Your task to perform on an android device: Go to notification settings Image 0: 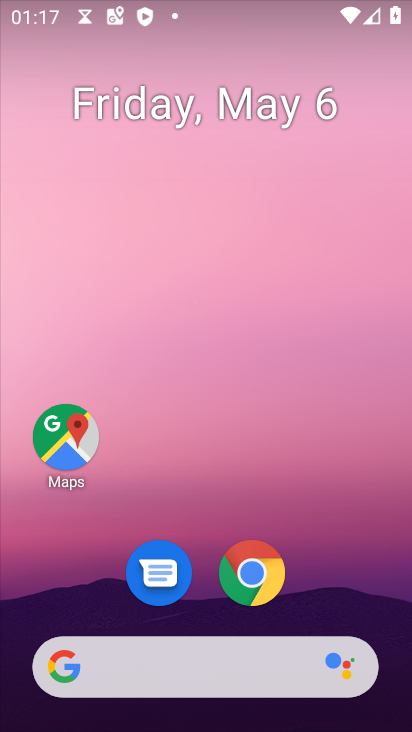
Step 0: drag from (362, 609) to (352, 234)
Your task to perform on an android device: Go to notification settings Image 1: 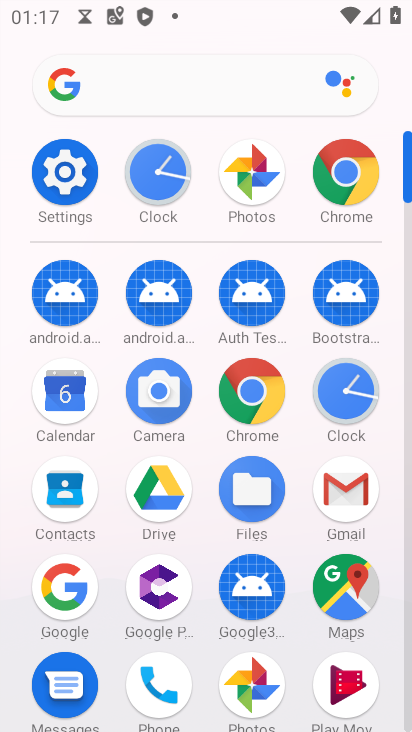
Step 1: click (54, 163)
Your task to perform on an android device: Go to notification settings Image 2: 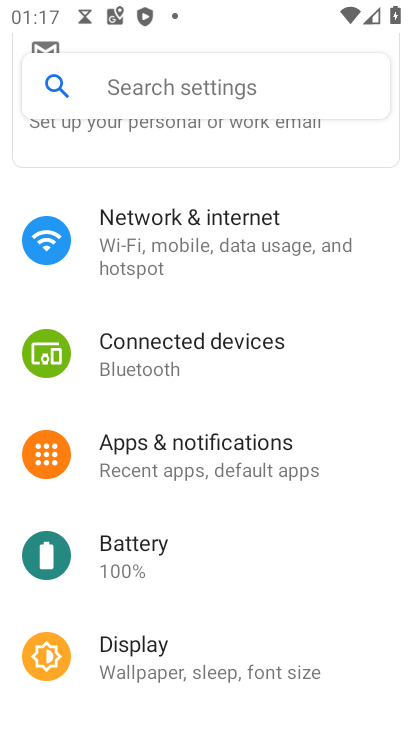
Step 2: click (201, 446)
Your task to perform on an android device: Go to notification settings Image 3: 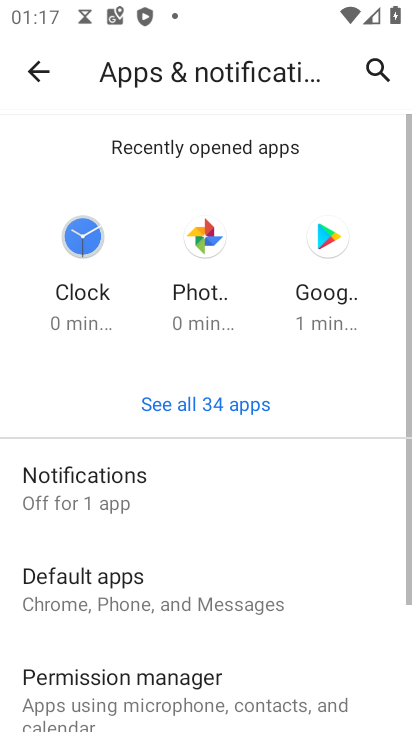
Step 3: click (165, 494)
Your task to perform on an android device: Go to notification settings Image 4: 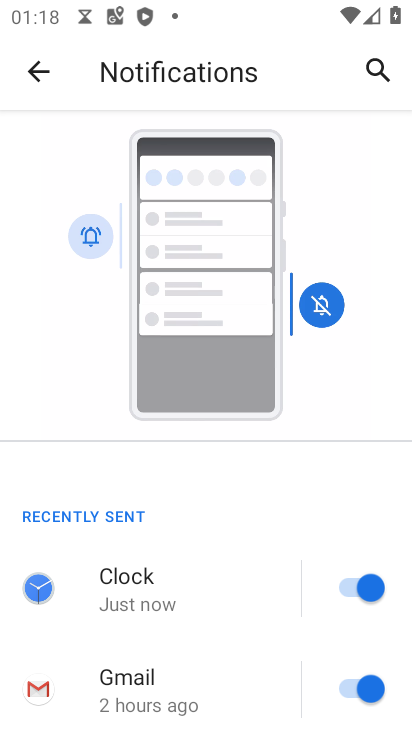
Step 4: task complete